Your task to perform on an android device: check battery use Image 0: 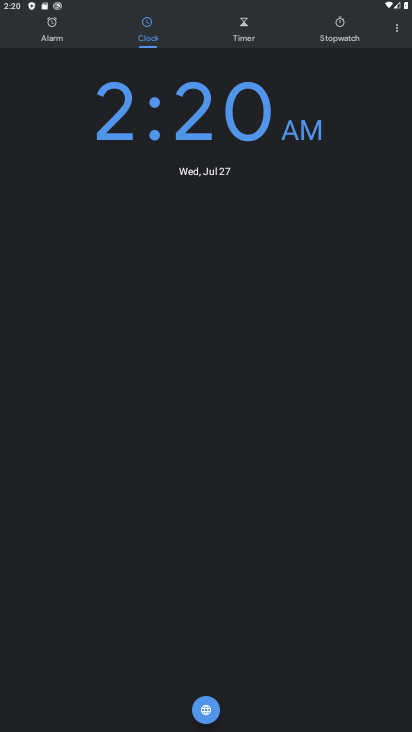
Step 0: press home button
Your task to perform on an android device: check battery use Image 1: 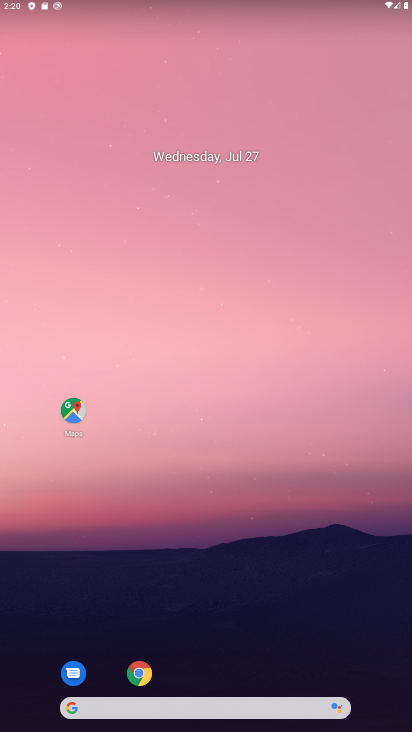
Step 1: drag from (47, 680) to (264, 125)
Your task to perform on an android device: check battery use Image 2: 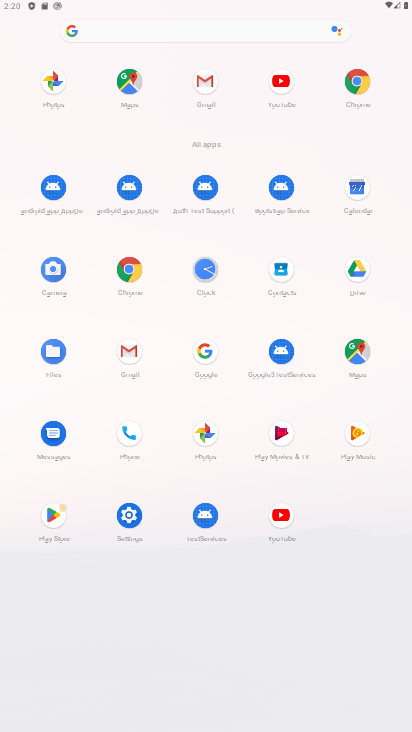
Step 2: click (140, 524)
Your task to perform on an android device: check battery use Image 3: 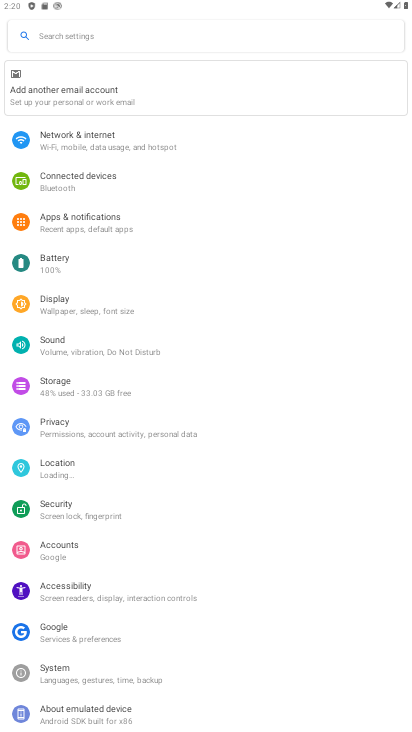
Step 3: click (87, 267)
Your task to perform on an android device: check battery use Image 4: 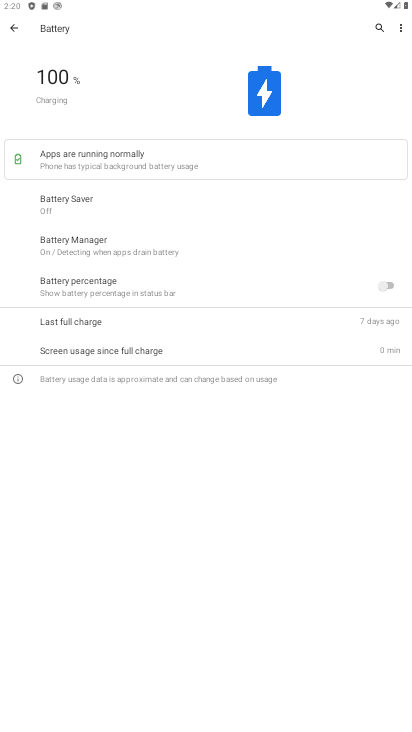
Step 4: task complete